Your task to perform on an android device: Open Google Maps and go to "Timeline" Image 0: 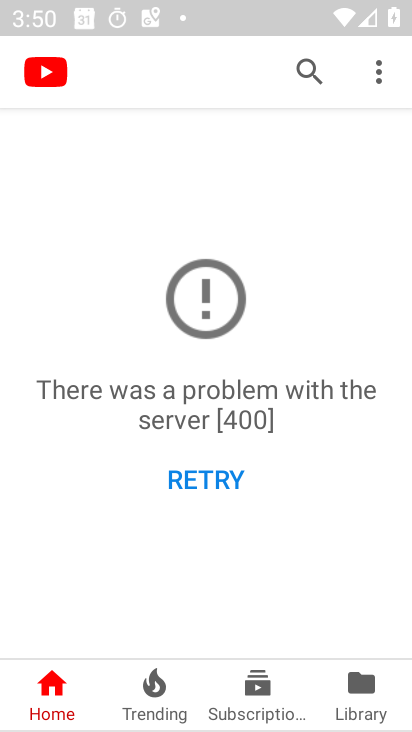
Step 0: press home button
Your task to perform on an android device: Open Google Maps and go to "Timeline" Image 1: 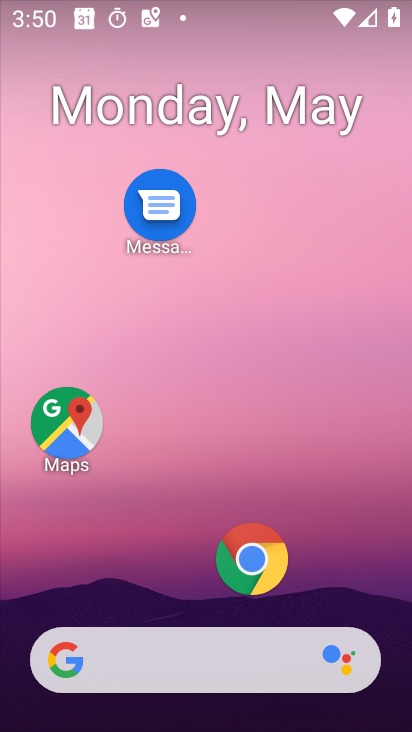
Step 1: click (67, 421)
Your task to perform on an android device: Open Google Maps and go to "Timeline" Image 2: 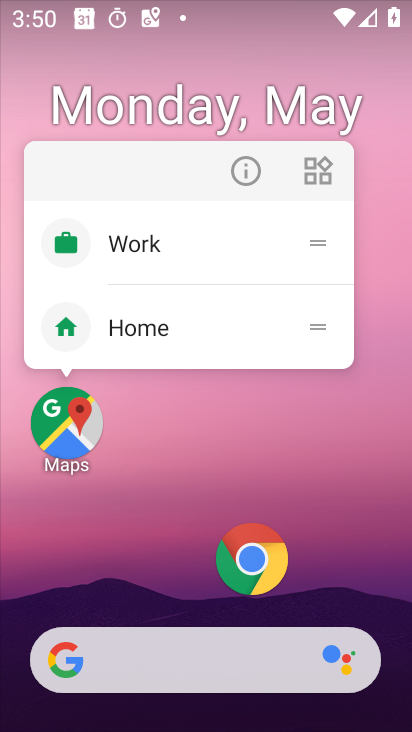
Step 2: click (257, 163)
Your task to perform on an android device: Open Google Maps and go to "Timeline" Image 3: 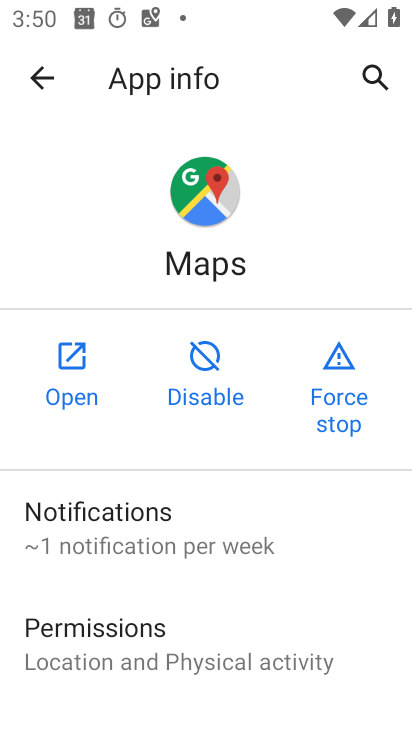
Step 3: click (47, 379)
Your task to perform on an android device: Open Google Maps and go to "Timeline" Image 4: 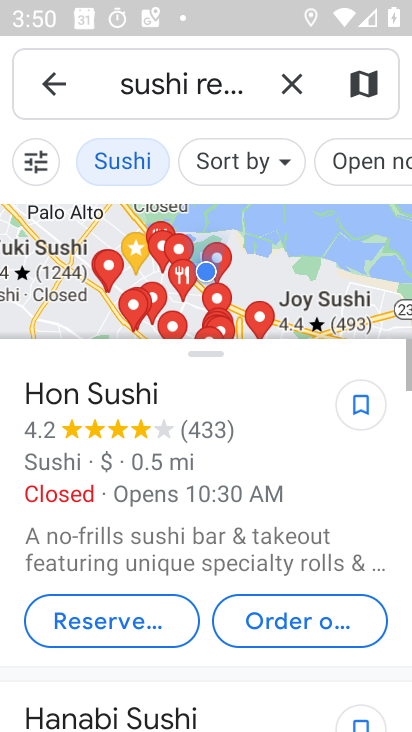
Step 4: click (39, 77)
Your task to perform on an android device: Open Google Maps and go to "Timeline" Image 5: 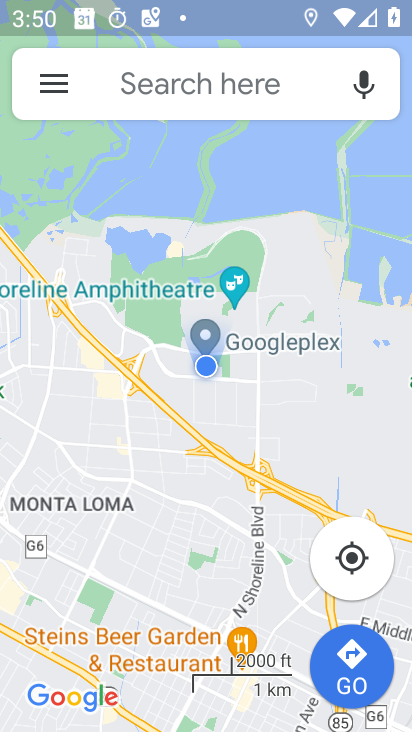
Step 5: click (40, 79)
Your task to perform on an android device: Open Google Maps and go to "Timeline" Image 6: 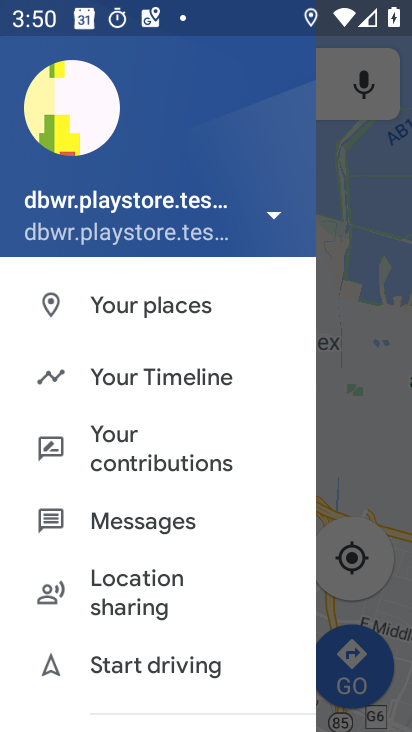
Step 6: click (160, 375)
Your task to perform on an android device: Open Google Maps and go to "Timeline" Image 7: 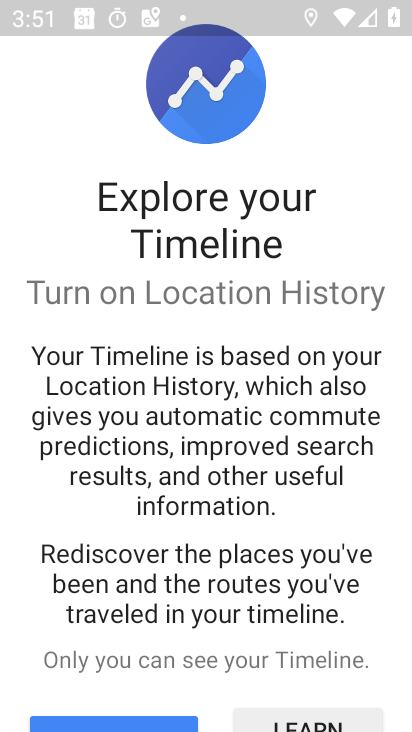
Step 7: task complete